Your task to perform on an android device: turn on location history Image 0: 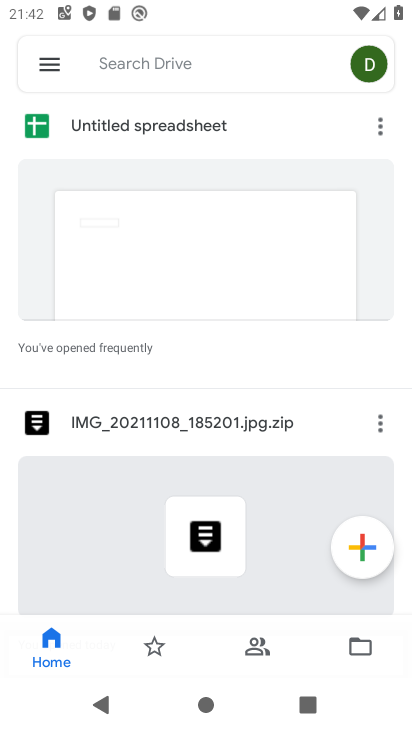
Step 0: press home button
Your task to perform on an android device: turn on location history Image 1: 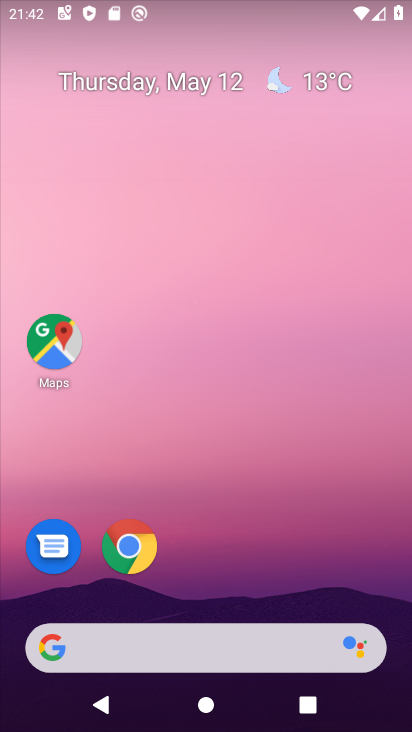
Step 1: drag from (266, 545) to (304, 7)
Your task to perform on an android device: turn on location history Image 2: 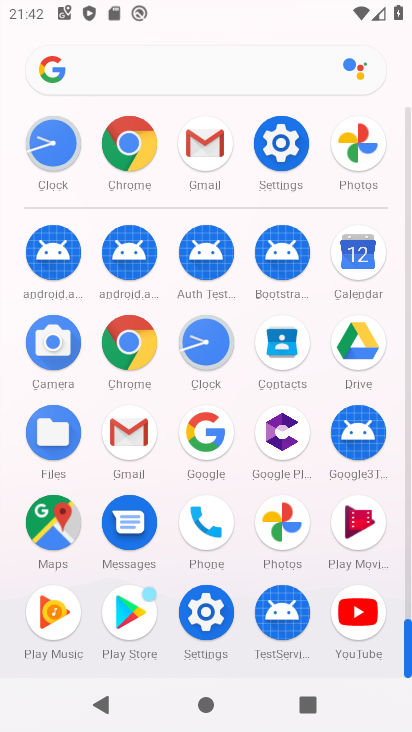
Step 2: click (43, 542)
Your task to perform on an android device: turn on location history Image 3: 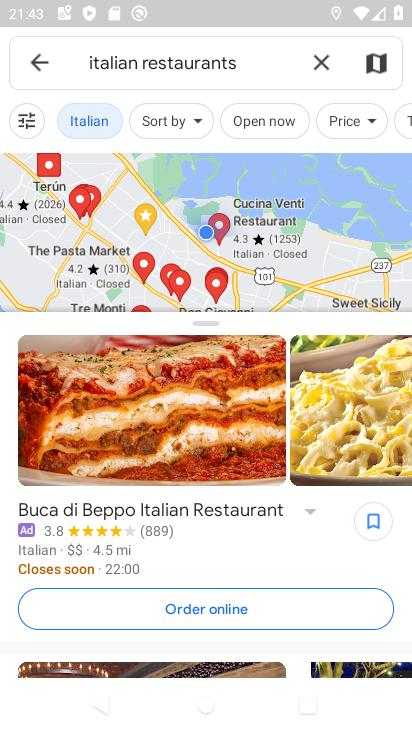
Step 3: click (331, 63)
Your task to perform on an android device: turn on location history Image 4: 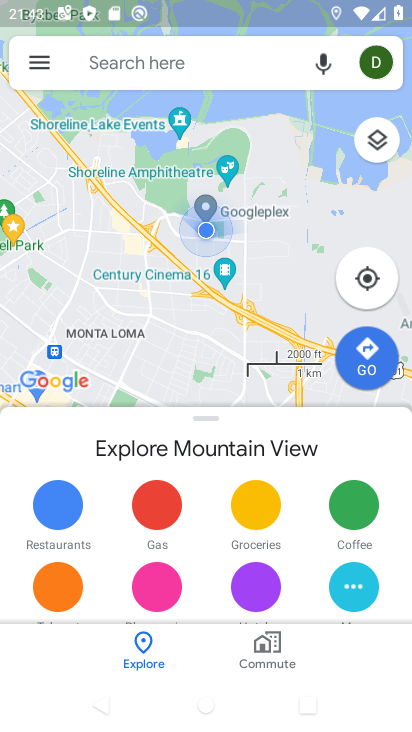
Step 4: click (28, 69)
Your task to perform on an android device: turn on location history Image 5: 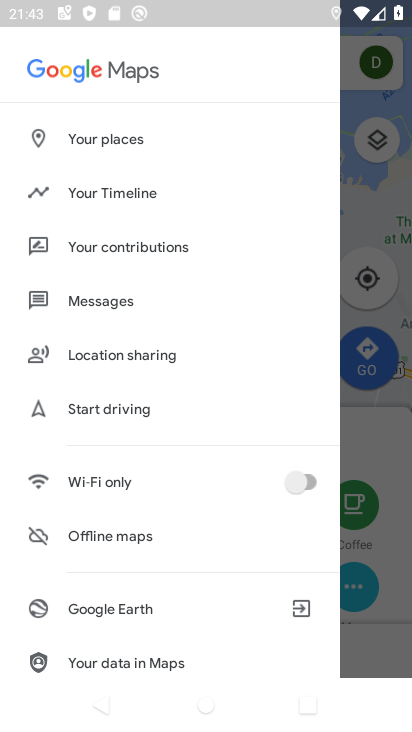
Step 5: drag from (151, 563) to (129, 9)
Your task to perform on an android device: turn on location history Image 6: 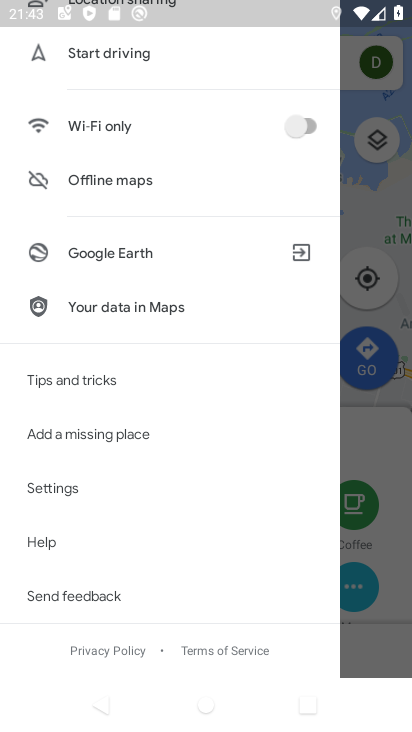
Step 6: drag from (114, 289) to (215, 689)
Your task to perform on an android device: turn on location history Image 7: 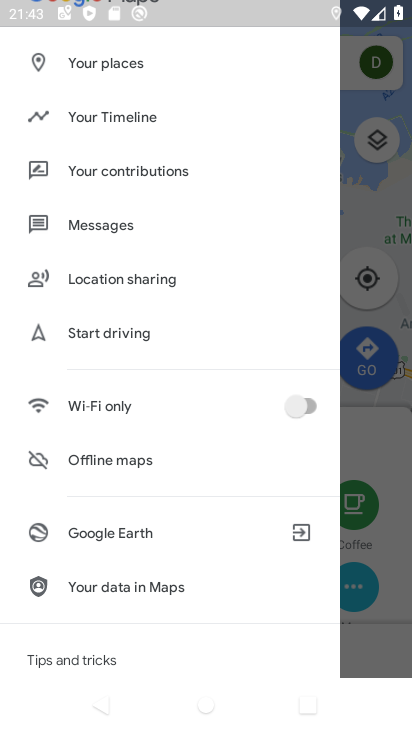
Step 7: click (140, 123)
Your task to perform on an android device: turn on location history Image 8: 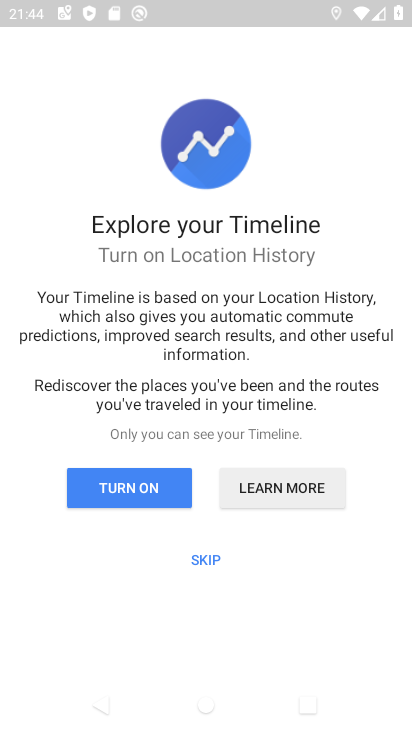
Step 8: click (217, 553)
Your task to perform on an android device: turn on location history Image 9: 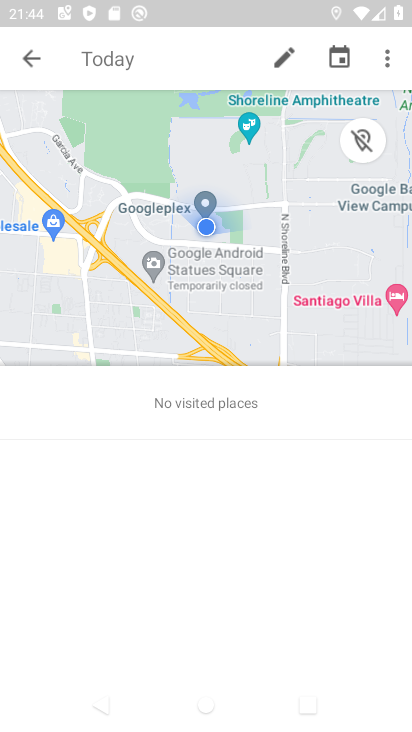
Step 9: click (386, 54)
Your task to perform on an android device: turn on location history Image 10: 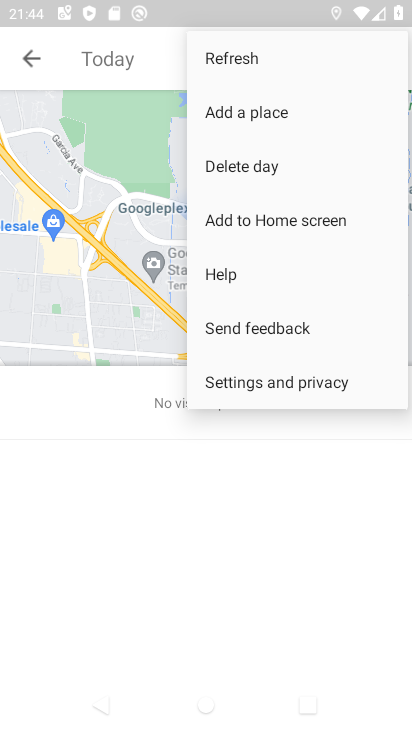
Step 10: click (303, 383)
Your task to perform on an android device: turn on location history Image 11: 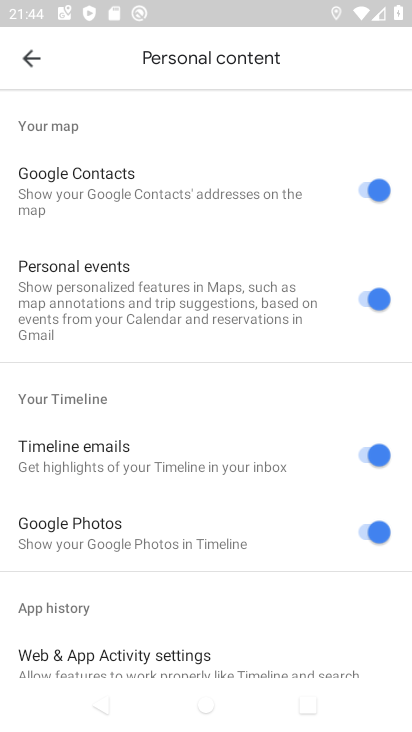
Step 11: drag from (157, 0) to (220, 66)
Your task to perform on an android device: turn on location history Image 12: 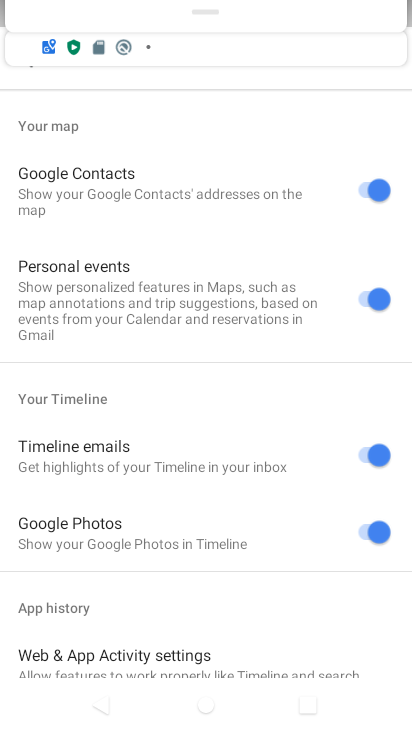
Step 12: drag from (188, 375) to (188, 90)
Your task to perform on an android device: turn on location history Image 13: 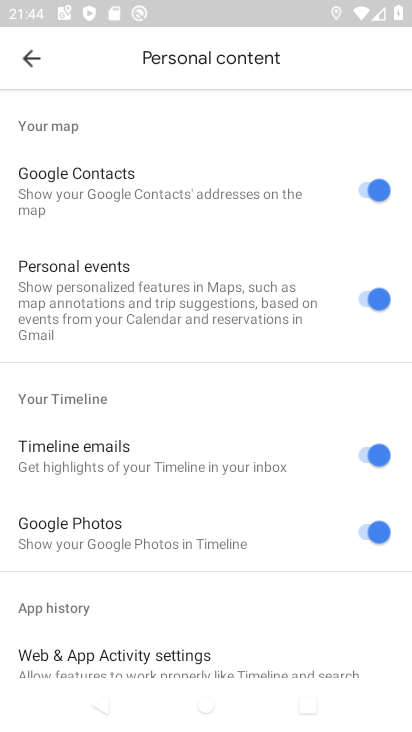
Step 13: drag from (130, 441) to (170, 233)
Your task to perform on an android device: turn on location history Image 14: 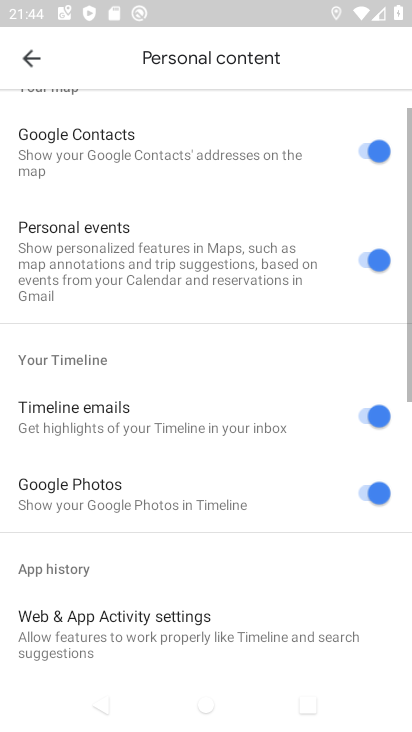
Step 14: drag from (139, 604) to (184, 177)
Your task to perform on an android device: turn on location history Image 15: 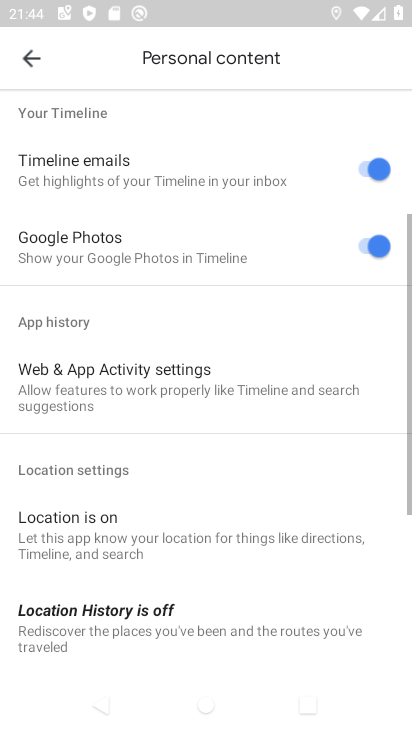
Step 15: click (169, 359)
Your task to perform on an android device: turn on location history Image 16: 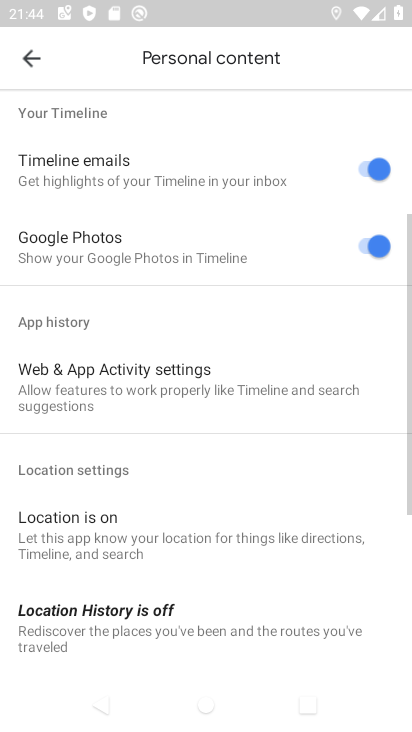
Step 16: drag from (164, 662) to (169, 481)
Your task to perform on an android device: turn on location history Image 17: 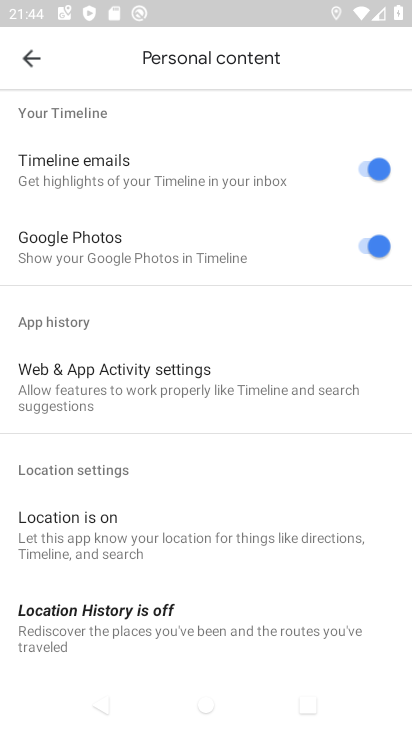
Step 17: click (173, 396)
Your task to perform on an android device: turn on location history Image 18: 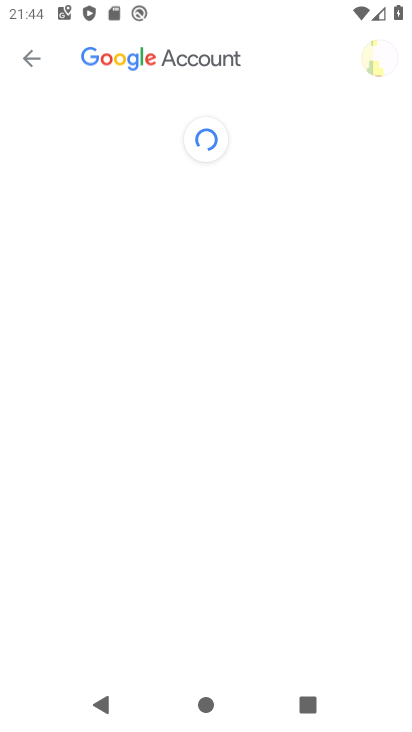
Step 18: press back button
Your task to perform on an android device: turn on location history Image 19: 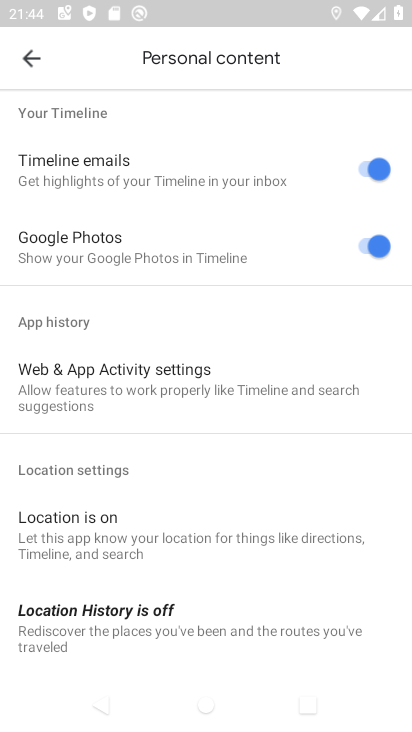
Step 19: click (113, 610)
Your task to perform on an android device: turn on location history Image 20: 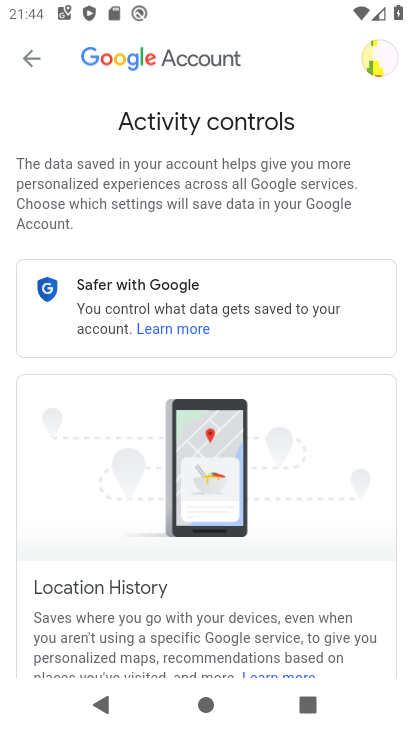
Step 20: task complete